Your task to perform on an android device: Set the phone to "Do not disturb". Image 0: 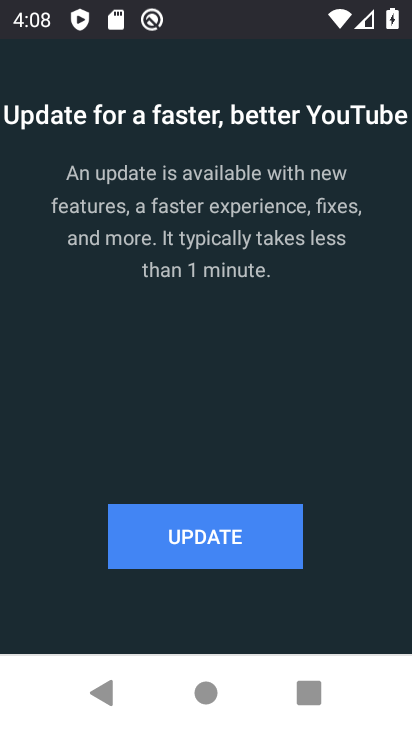
Step 0: press home button
Your task to perform on an android device: Set the phone to "Do not disturb". Image 1: 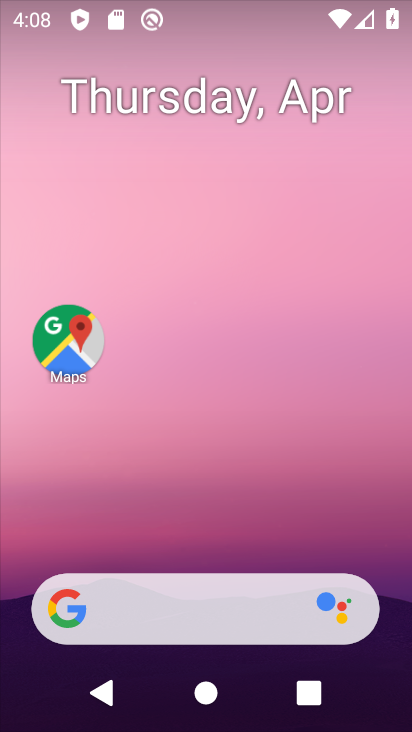
Step 1: drag from (211, 726) to (222, 99)
Your task to perform on an android device: Set the phone to "Do not disturb". Image 2: 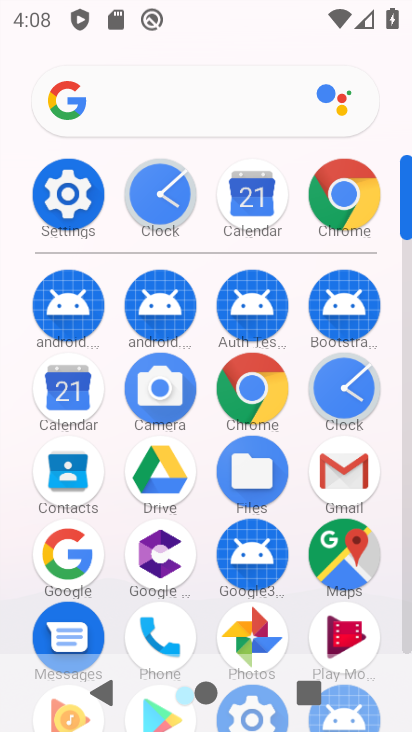
Step 2: click (66, 195)
Your task to perform on an android device: Set the phone to "Do not disturb". Image 3: 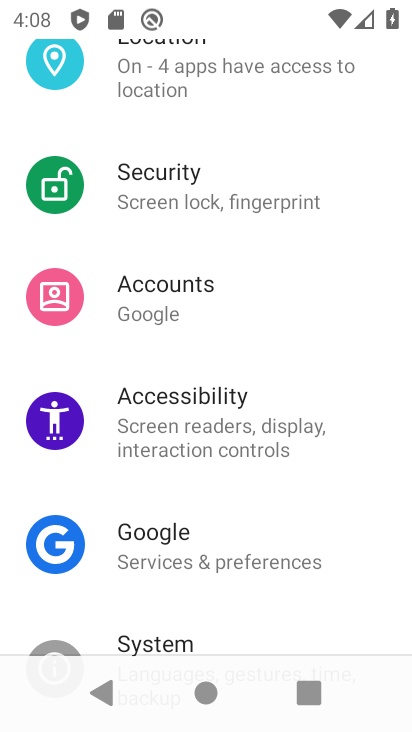
Step 3: drag from (247, 131) to (224, 519)
Your task to perform on an android device: Set the phone to "Do not disturb". Image 4: 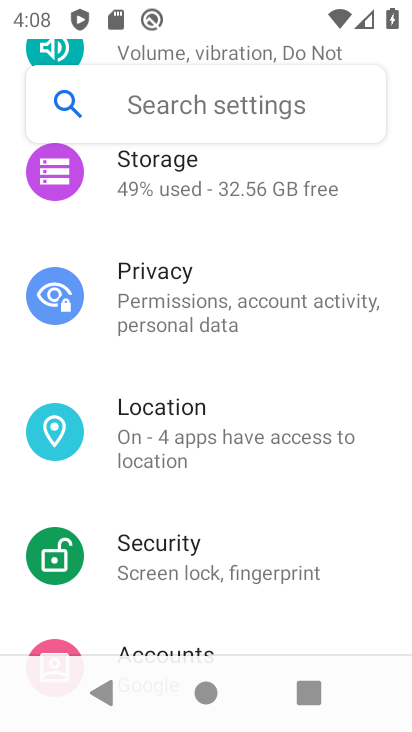
Step 4: drag from (224, 238) to (187, 541)
Your task to perform on an android device: Set the phone to "Do not disturb". Image 5: 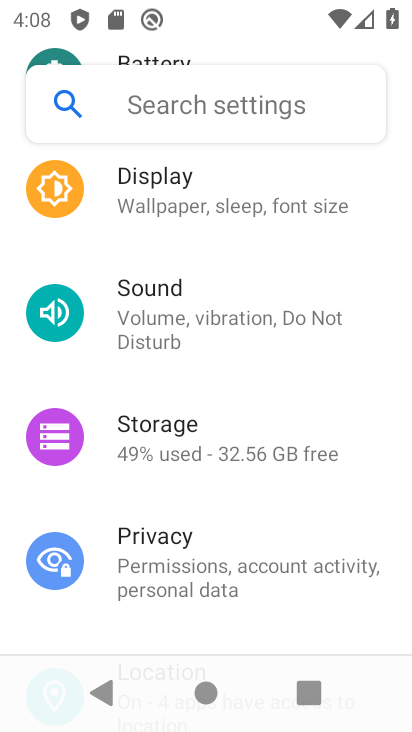
Step 5: click (200, 318)
Your task to perform on an android device: Set the phone to "Do not disturb". Image 6: 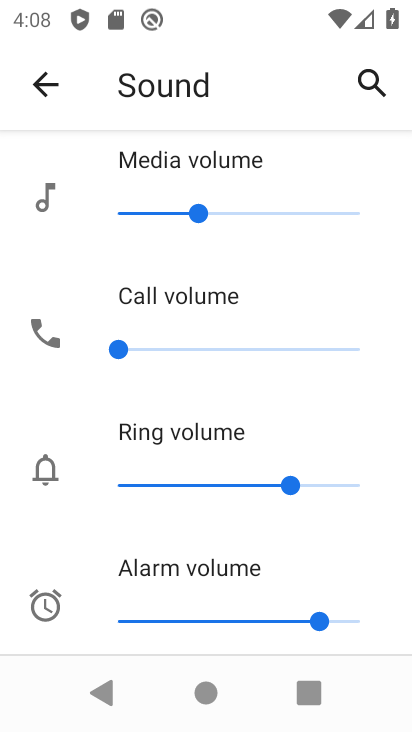
Step 6: drag from (212, 636) to (220, 174)
Your task to perform on an android device: Set the phone to "Do not disturb". Image 7: 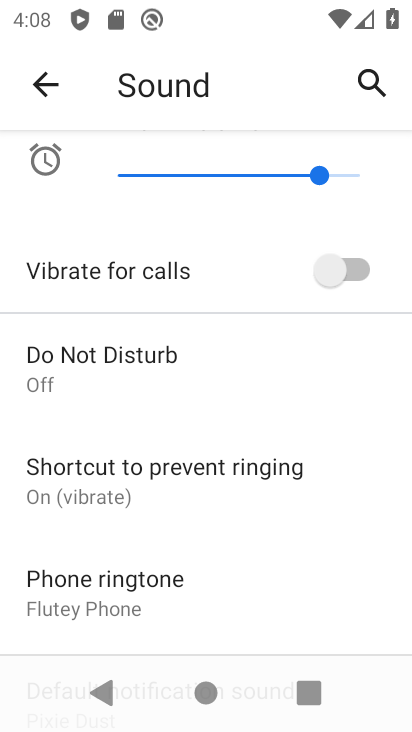
Step 7: click (104, 356)
Your task to perform on an android device: Set the phone to "Do not disturb". Image 8: 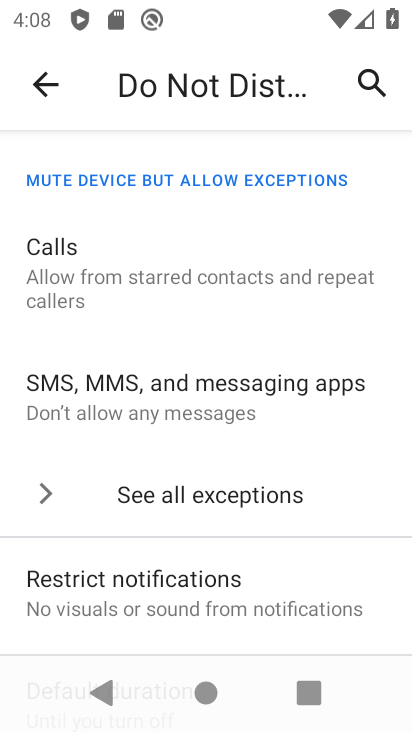
Step 8: drag from (177, 633) to (209, 232)
Your task to perform on an android device: Set the phone to "Do not disturb". Image 9: 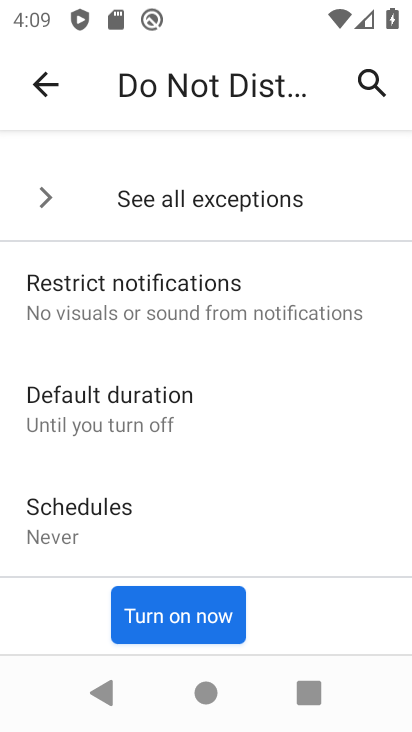
Step 9: click (189, 617)
Your task to perform on an android device: Set the phone to "Do not disturb". Image 10: 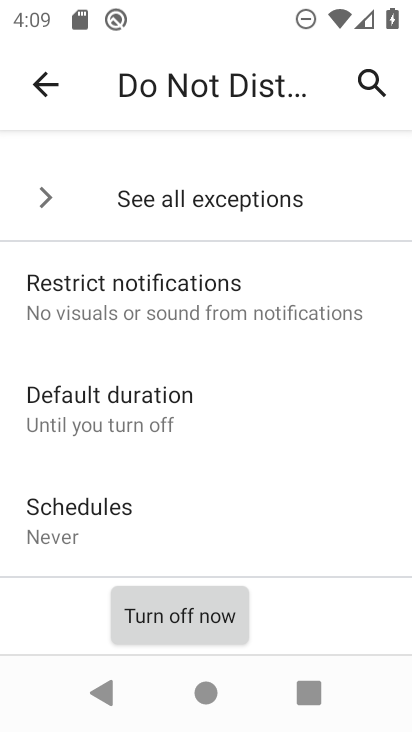
Step 10: task complete